Your task to perform on an android device: toggle priority inbox in the gmail app Image 0: 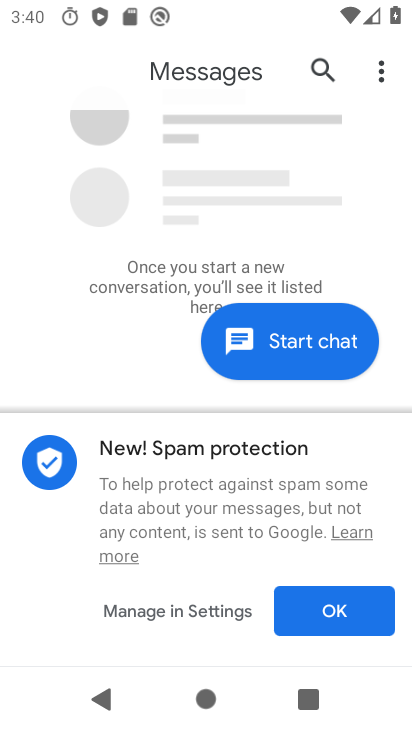
Step 0: press back button
Your task to perform on an android device: toggle priority inbox in the gmail app Image 1: 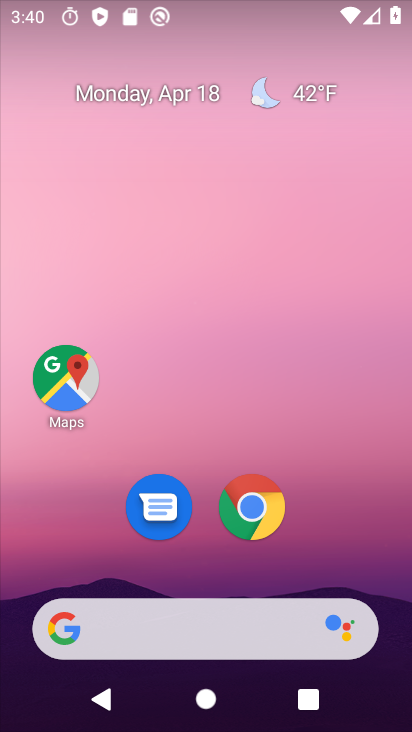
Step 1: drag from (326, 579) to (319, 212)
Your task to perform on an android device: toggle priority inbox in the gmail app Image 2: 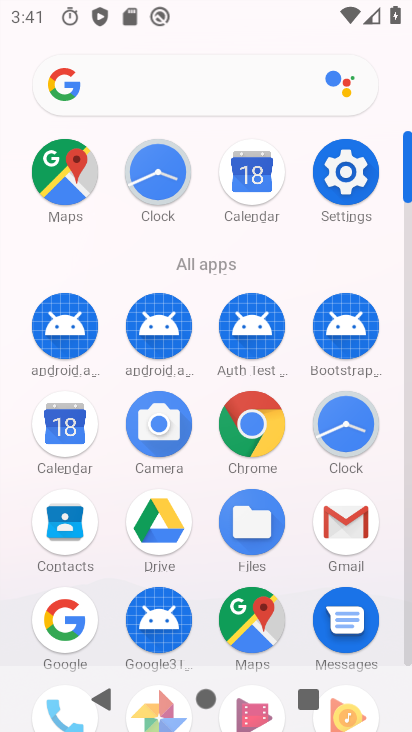
Step 2: click (348, 512)
Your task to perform on an android device: toggle priority inbox in the gmail app Image 3: 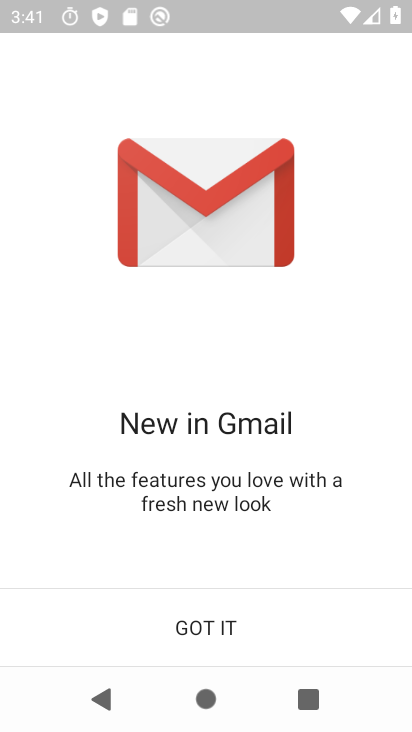
Step 3: click (256, 635)
Your task to perform on an android device: toggle priority inbox in the gmail app Image 4: 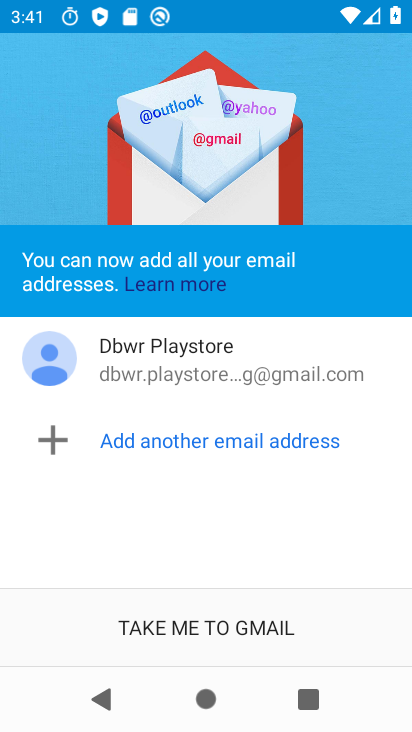
Step 4: click (258, 634)
Your task to perform on an android device: toggle priority inbox in the gmail app Image 5: 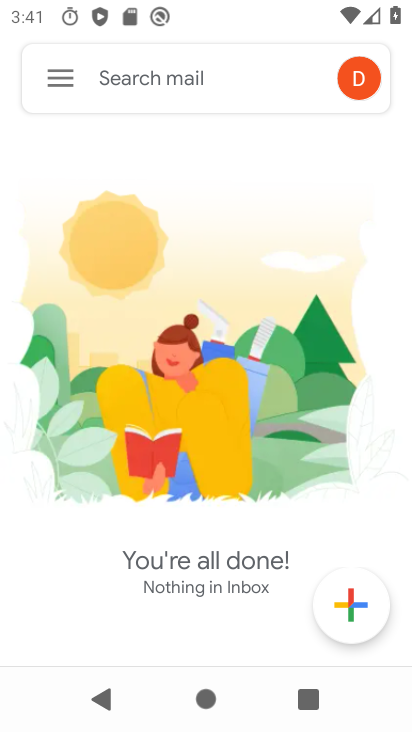
Step 5: click (58, 80)
Your task to perform on an android device: toggle priority inbox in the gmail app Image 6: 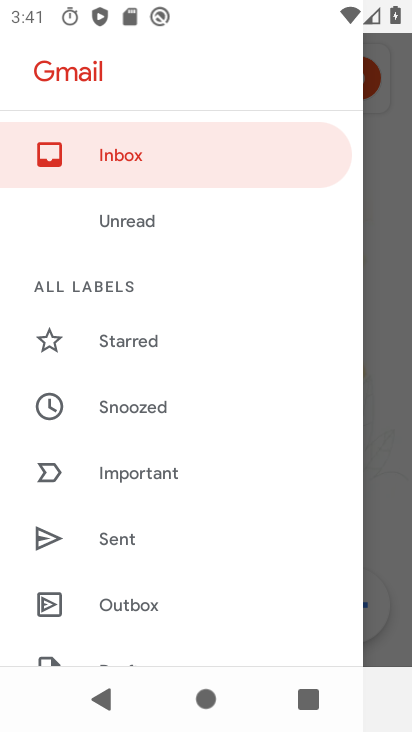
Step 6: drag from (165, 562) to (162, 337)
Your task to perform on an android device: toggle priority inbox in the gmail app Image 7: 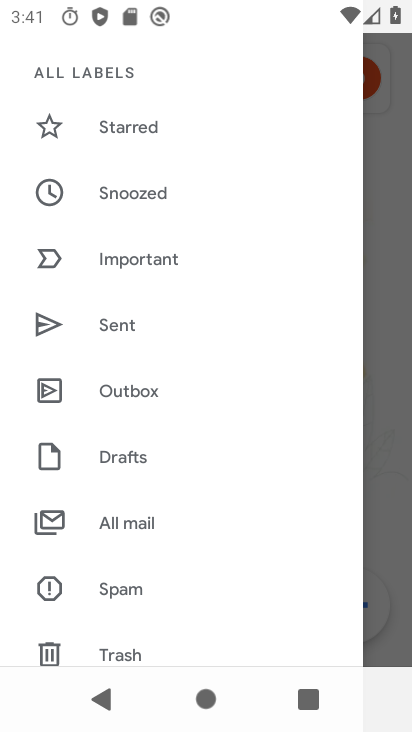
Step 7: drag from (188, 565) to (188, 278)
Your task to perform on an android device: toggle priority inbox in the gmail app Image 8: 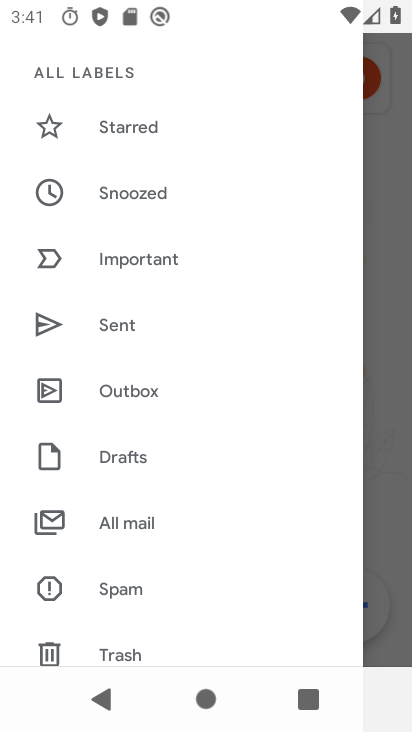
Step 8: drag from (150, 559) to (176, 188)
Your task to perform on an android device: toggle priority inbox in the gmail app Image 9: 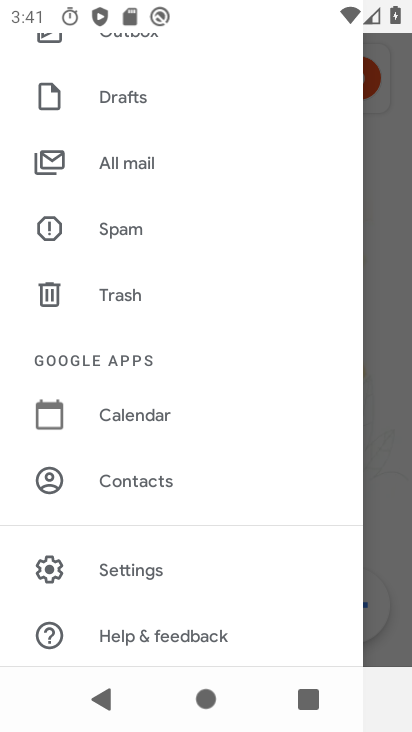
Step 9: click (185, 573)
Your task to perform on an android device: toggle priority inbox in the gmail app Image 10: 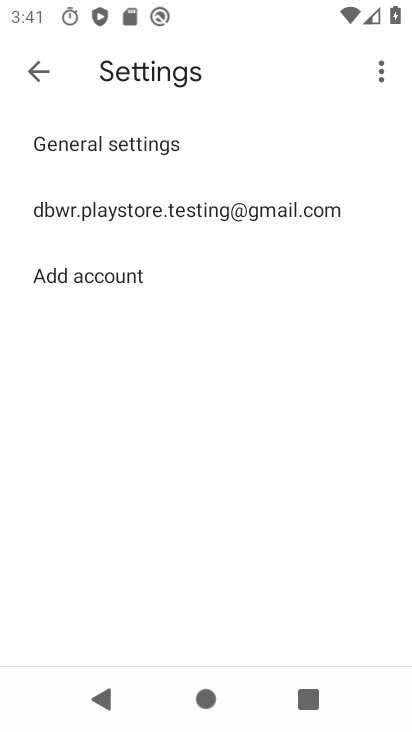
Step 10: click (181, 202)
Your task to perform on an android device: toggle priority inbox in the gmail app Image 11: 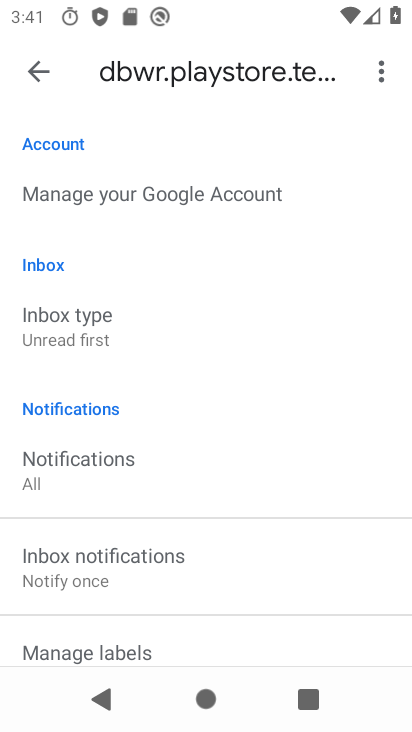
Step 11: click (98, 316)
Your task to perform on an android device: toggle priority inbox in the gmail app Image 12: 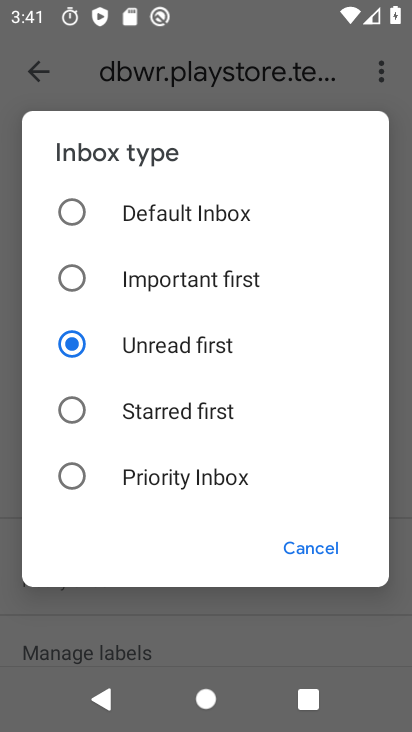
Step 12: click (201, 478)
Your task to perform on an android device: toggle priority inbox in the gmail app Image 13: 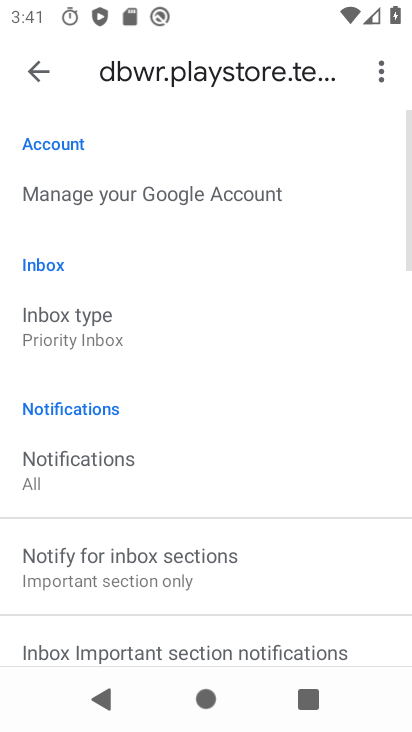
Step 13: task complete